Your task to perform on an android device: add a contact Image 0: 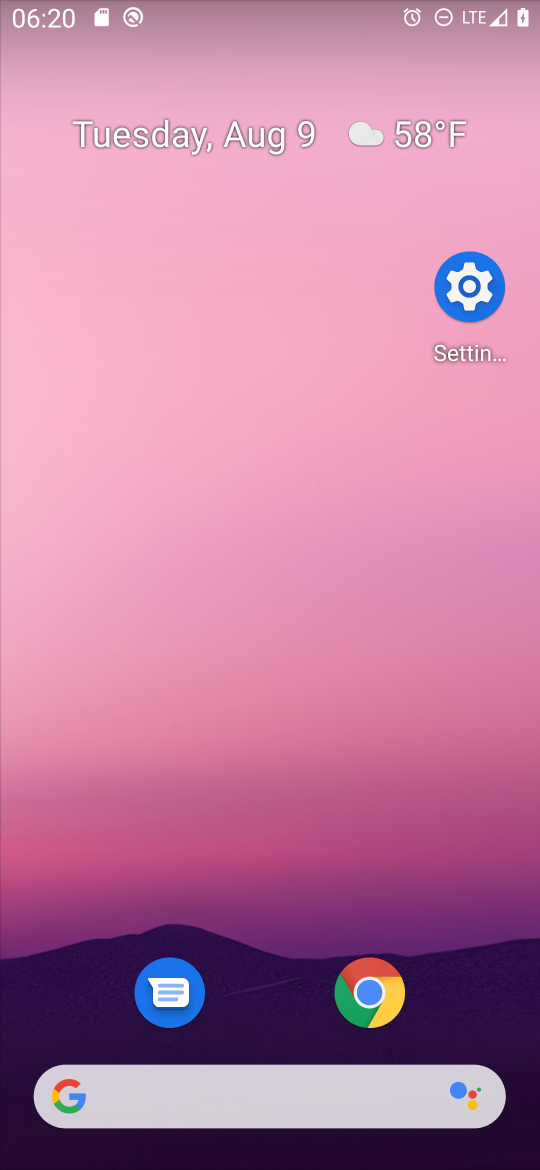
Step 0: press home button
Your task to perform on an android device: add a contact Image 1: 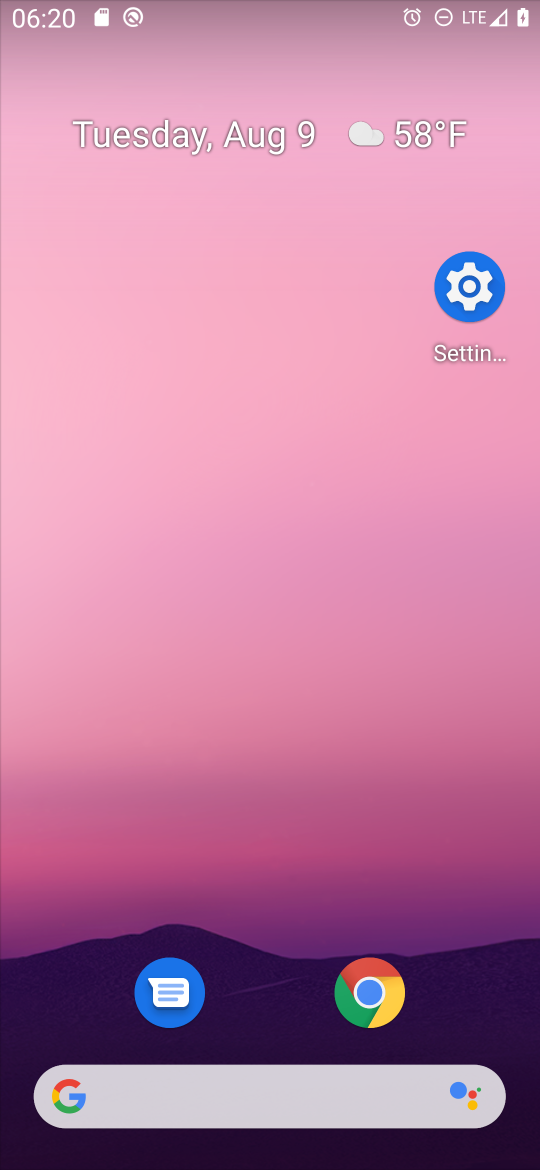
Step 1: drag from (275, 1108) to (344, 11)
Your task to perform on an android device: add a contact Image 2: 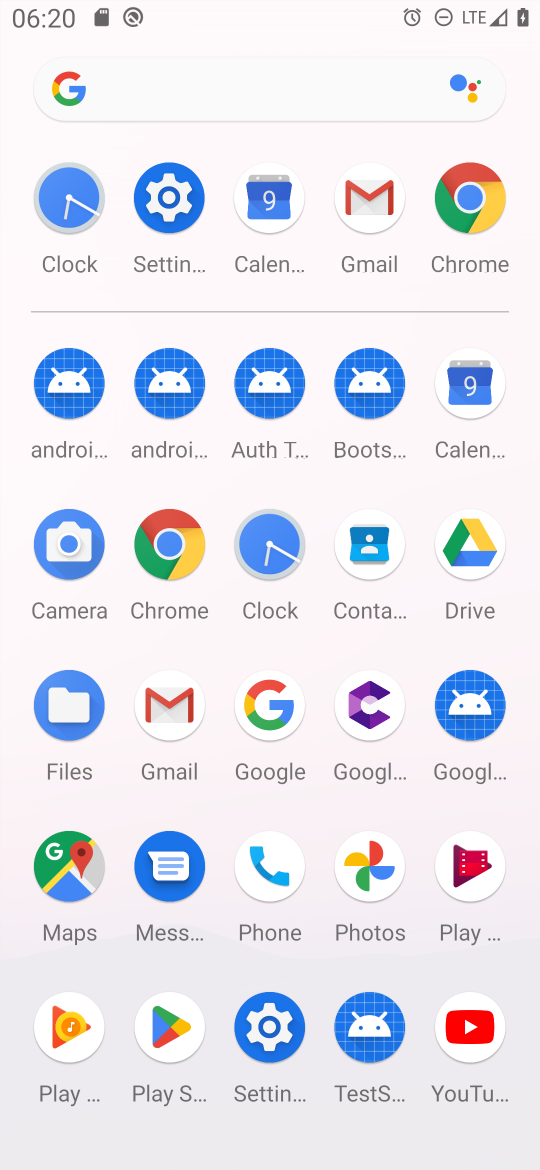
Step 2: click (371, 550)
Your task to perform on an android device: add a contact Image 3: 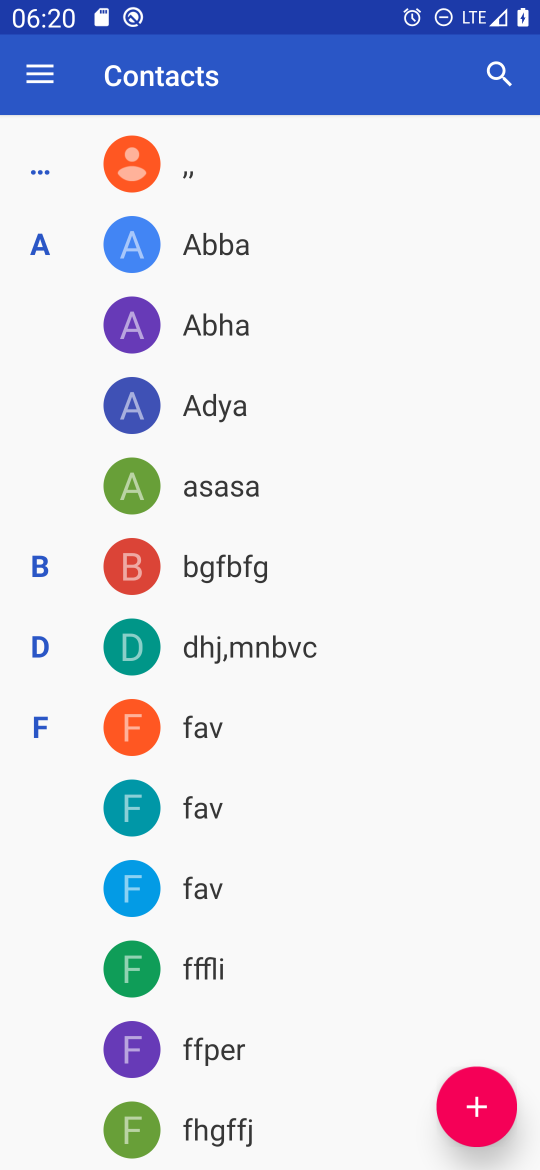
Step 3: click (483, 1086)
Your task to perform on an android device: add a contact Image 4: 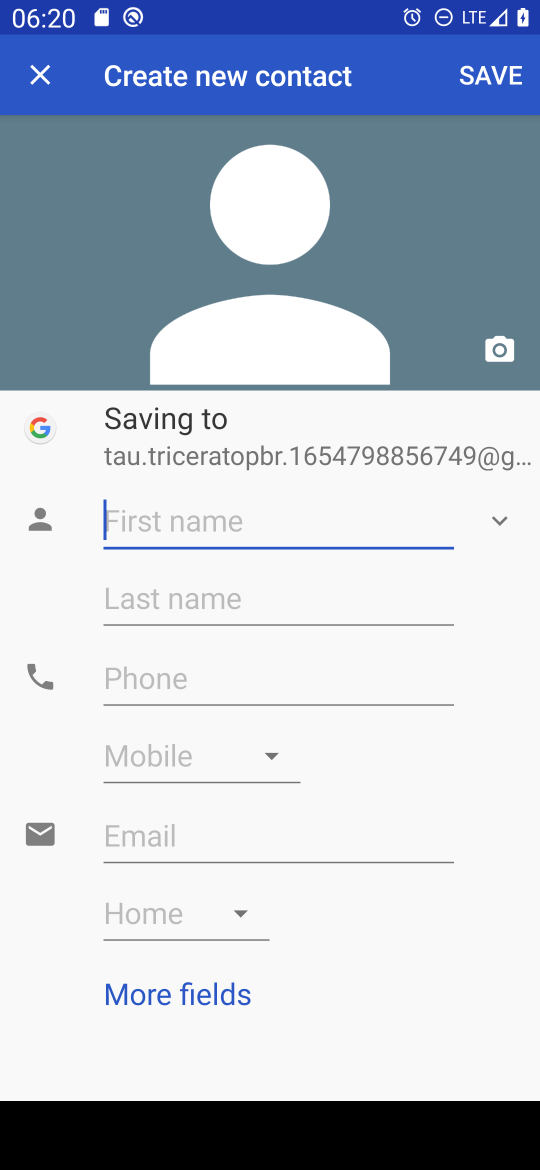
Step 4: type "hchgfh"
Your task to perform on an android device: add a contact Image 5: 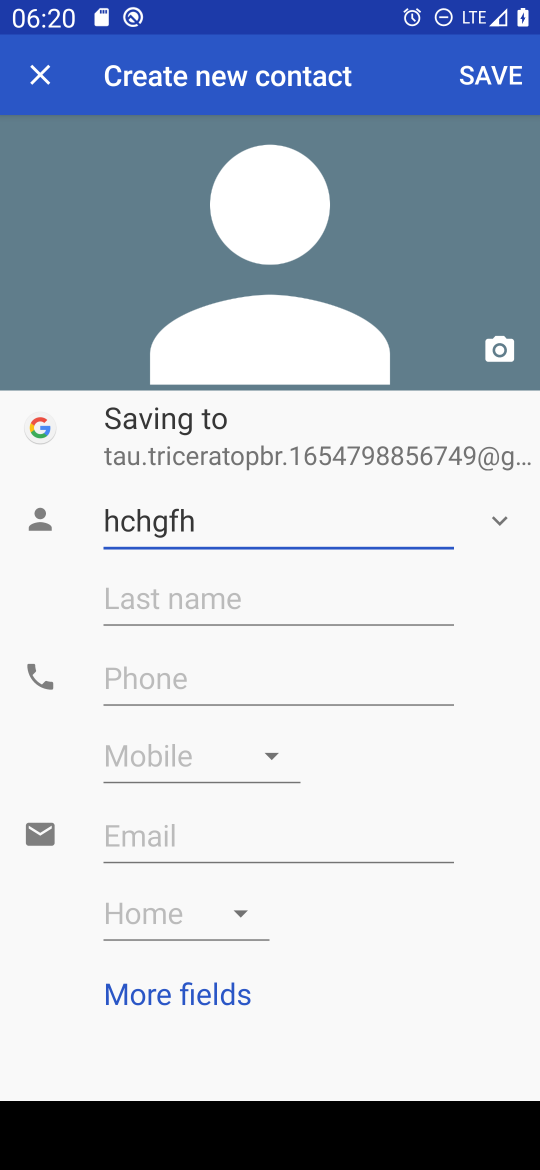
Step 5: click (234, 672)
Your task to perform on an android device: add a contact Image 6: 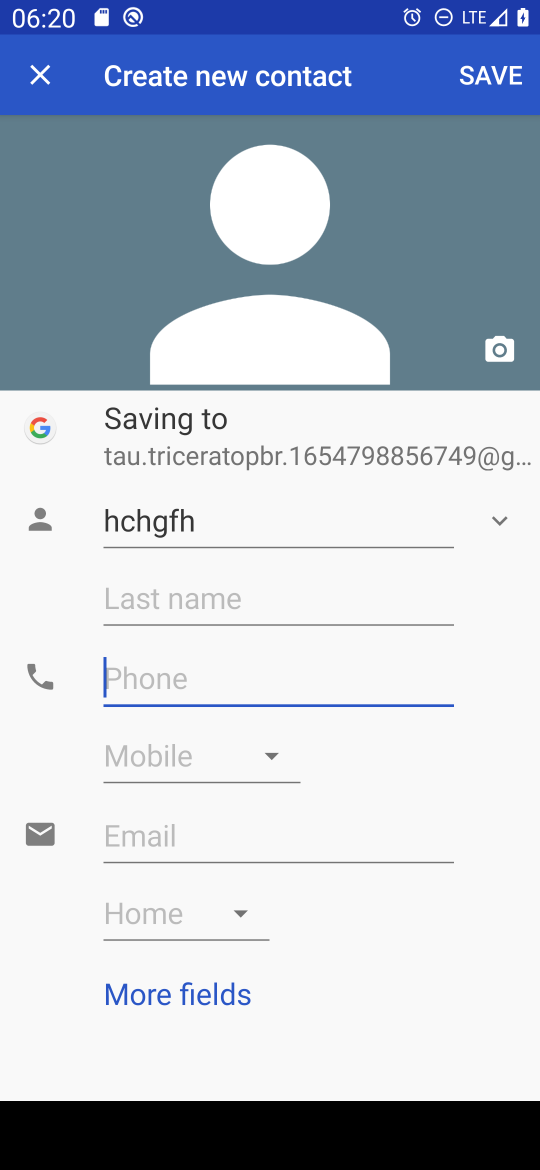
Step 6: click (165, 675)
Your task to perform on an android device: add a contact Image 7: 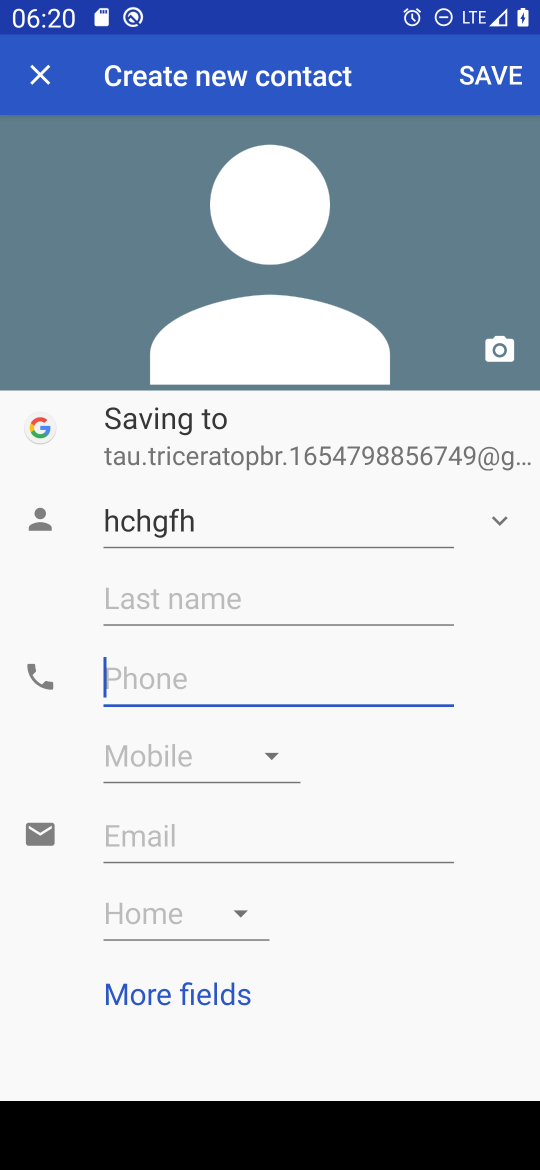
Step 7: type "89979879868"
Your task to perform on an android device: add a contact Image 8: 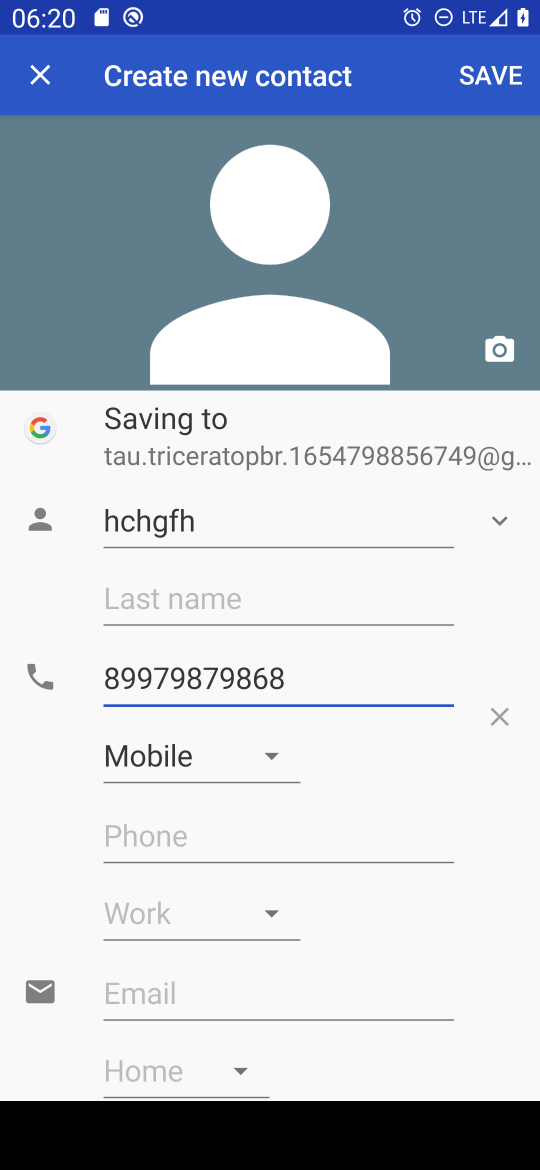
Step 8: click (489, 70)
Your task to perform on an android device: add a contact Image 9: 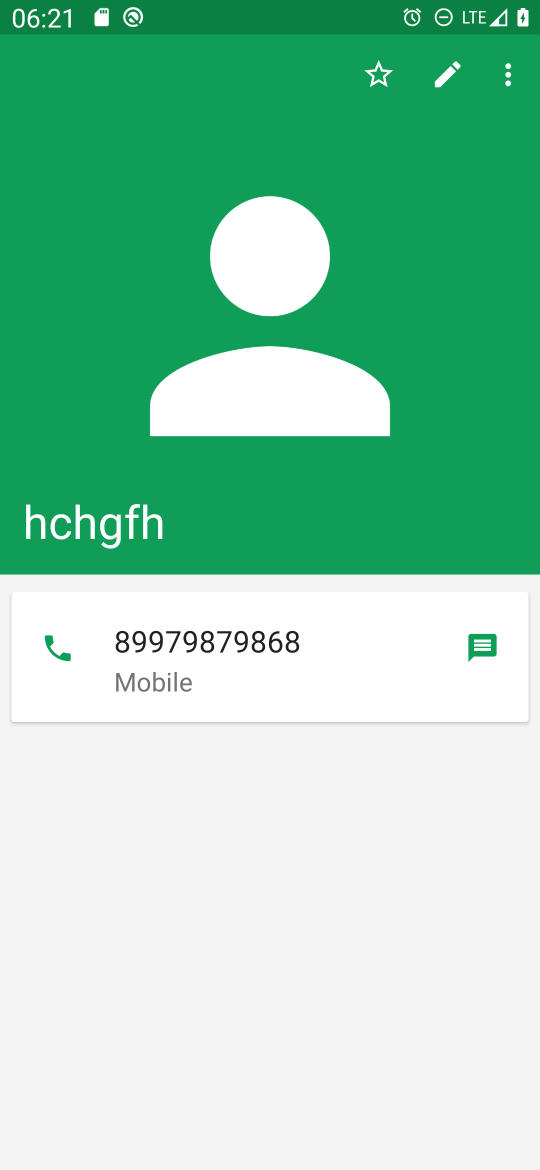
Step 9: task complete